Your task to perform on an android device: visit the assistant section in the google photos Image 0: 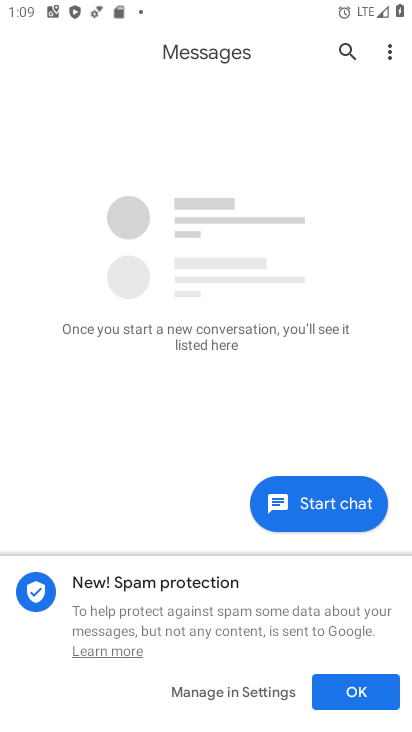
Step 0: press back button
Your task to perform on an android device: visit the assistant section in the google photos Image 1: 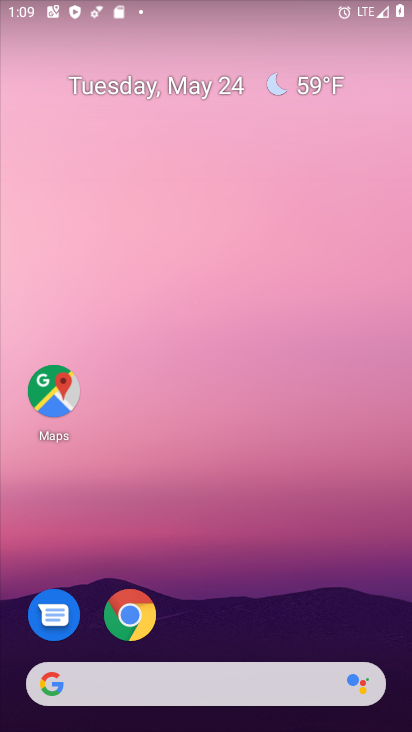
Step 1: drag from (268, 578) to (263, 18)
Your task to perform on an android device: visit the assistant section in the google photos Image 2: 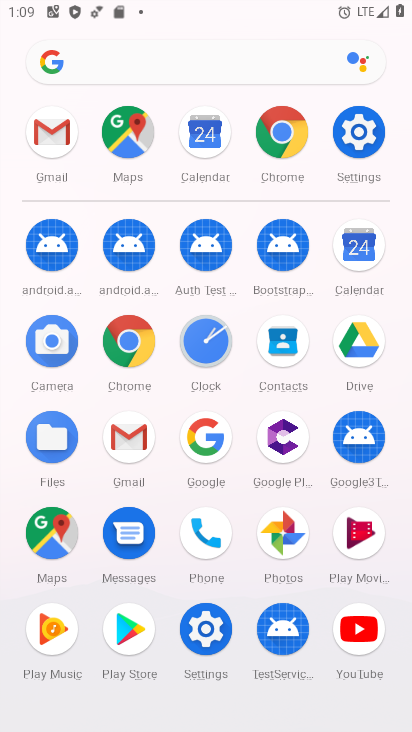
Step 2: drag from (7, 563) to (7, 175)
Your task to perform on an android device: visit the assistant section in the google photos Image 3: 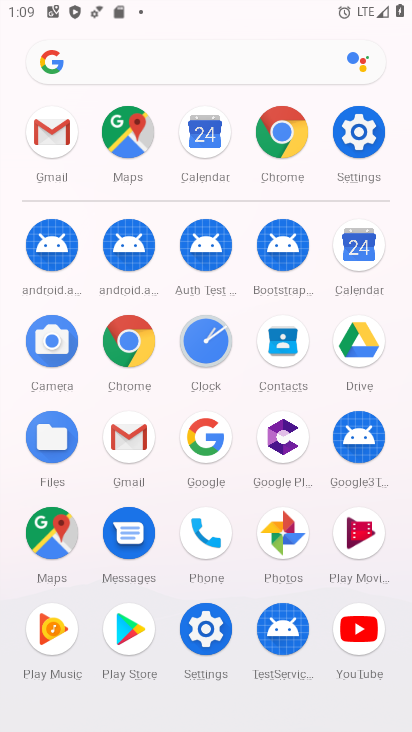
Step 3: click (281, 536)
Your task to perform on an android device: visit the assistant section in the google photos Image 4: 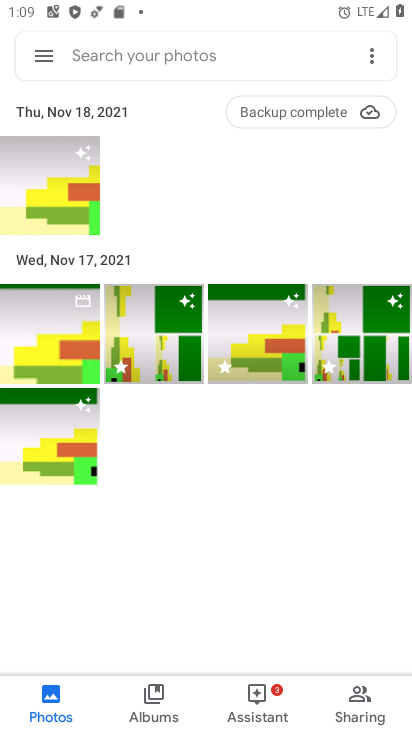
Step 4: click (244, 694)
Your task to perform on an android device: visit the assistant section in the google photos Image 5: 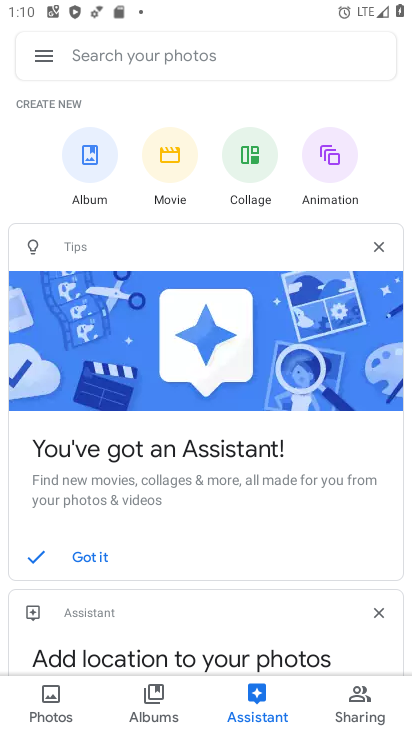
Step 5: task complete